Your task to perform on an android device: Search for pizza restaurants on Maps Image 0: 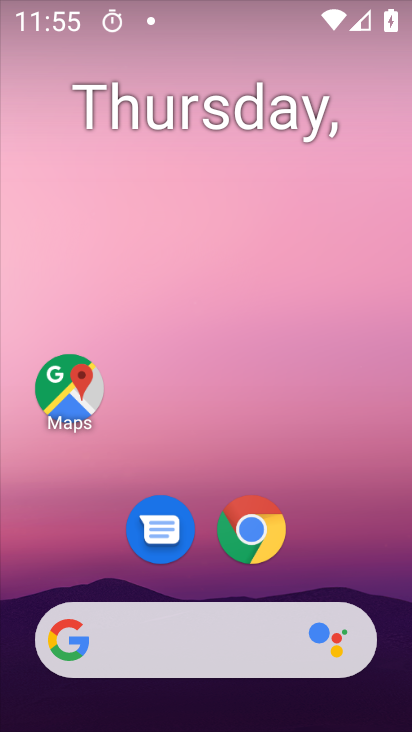
Step 0: click (96, 379)
Your task to perform on an android device: Search for pizza restaurants on Maps Image 1: 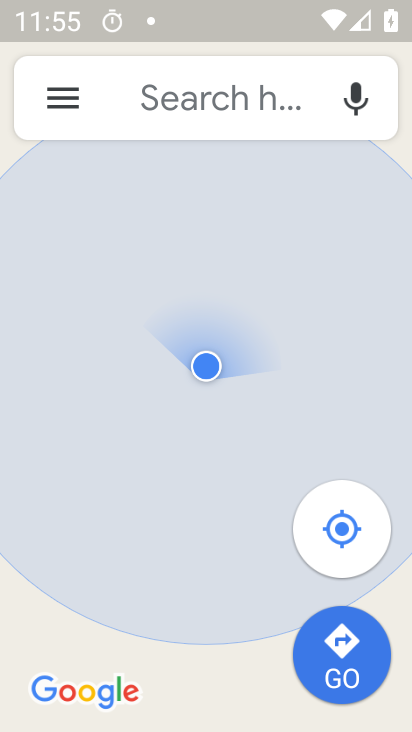
Step 1: click (165, 103)
Your task to perform on an android device: Search for pizza restaurants on Maps Image 2: 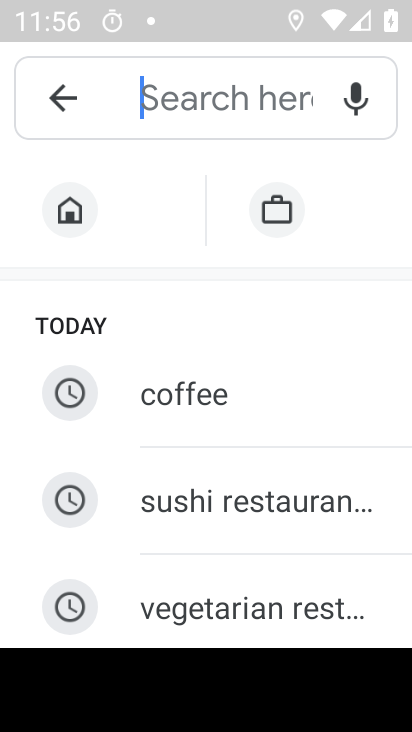
Step 2: click (159, 100)
Your task to perform on an android device: Search for pizza restaurants on Maps Image 3: 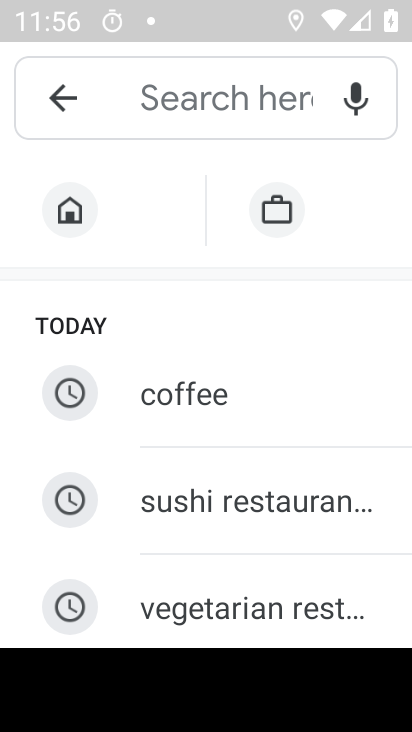
Step 3: type "pizza restaurants"
Your task to perform on an android device: Search for pizza restaurants on Maps Image 4: 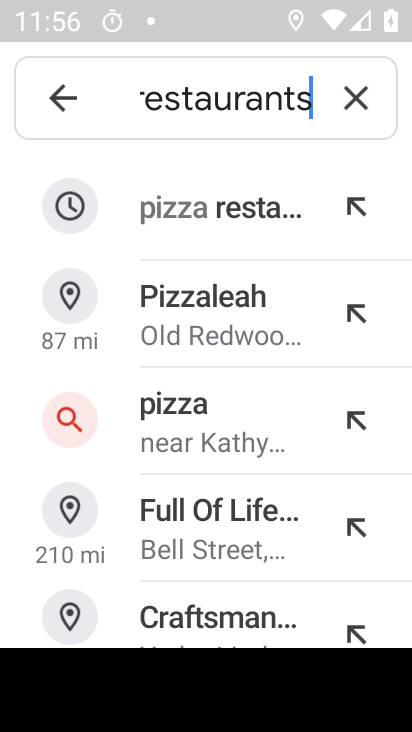
Step 4: click (218, 214)
Your task to perform on an android device: Search for pizza restaurants on Maps Image 5: 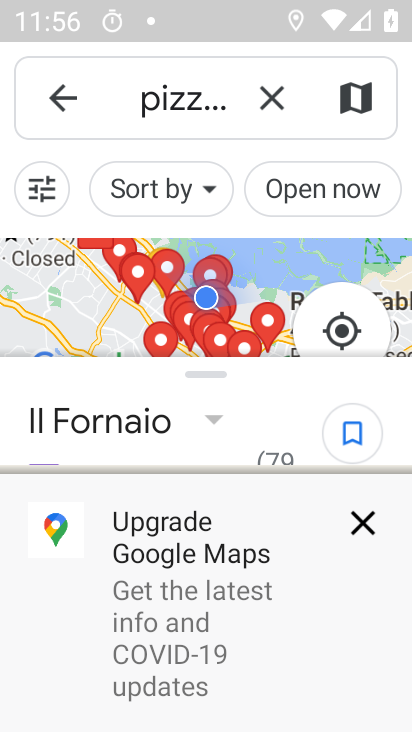
Step 5: click (364, 520)
Your task to perform on an android device: Search for pizza restaurants on Maps Image 6: 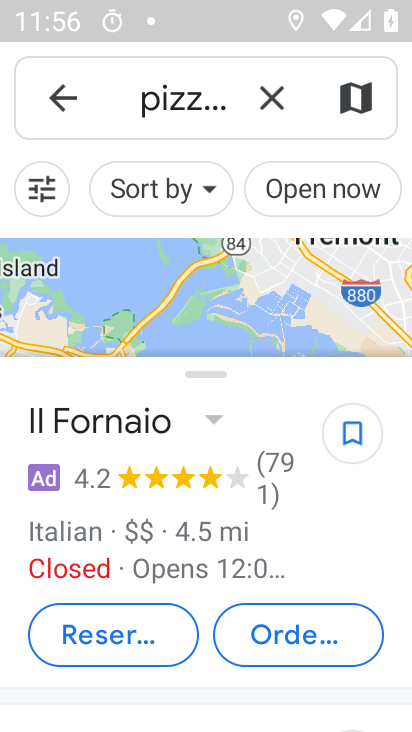
Step 6: task complete